Your task to perform on an android device: Open Google Maps and go to "Timeline" Image 0: 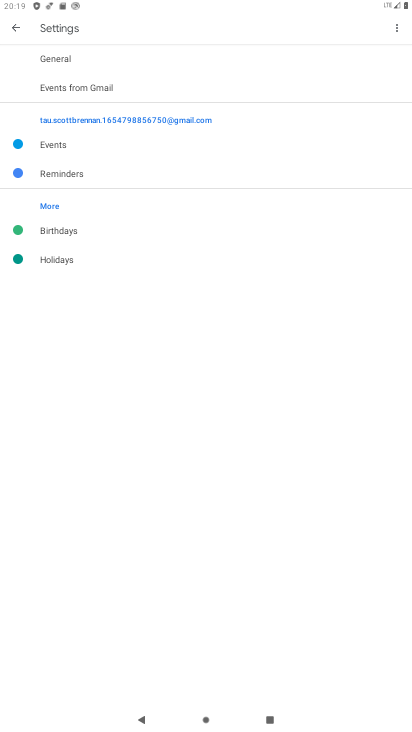
Step 0: press home button
Your task to perform on an android device: Open Google Maps and go to "Timeline" Image 1: 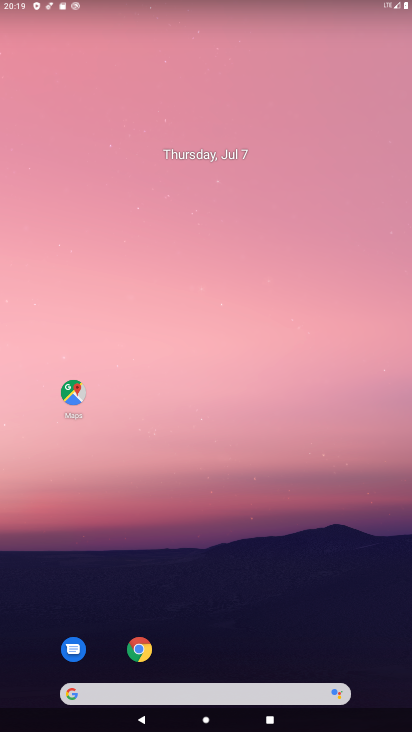
Step 1: click (67, 388)
Your task to perform on an android device: Open Google Maps and go to "Timeline" Image 2: 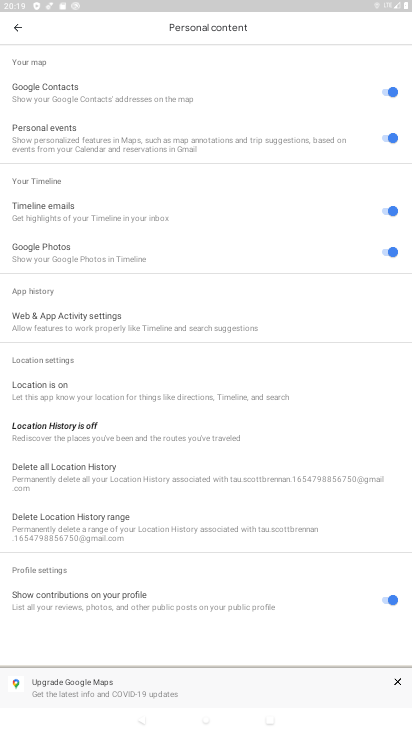
Step 2: click (15, 23)
Your task to perform on an android device: Open Google Maps and go to "Timeline" Image 3: 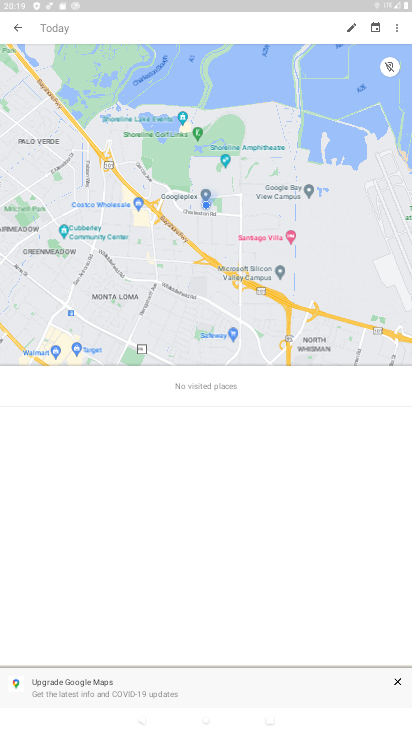
Step 3: task complete